Your task to perform on an android device: turn off notifications in google photos Image 0: 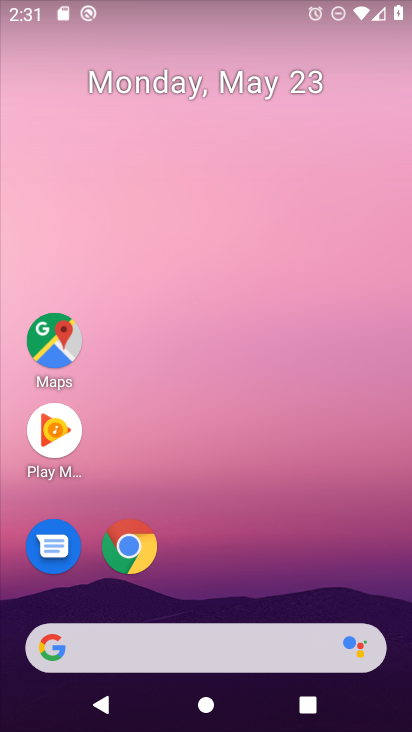
Step 0: drag from (257, 619) to (257, 80)
Your task to perform on an android device: turn off notifications in google photos Image 1: 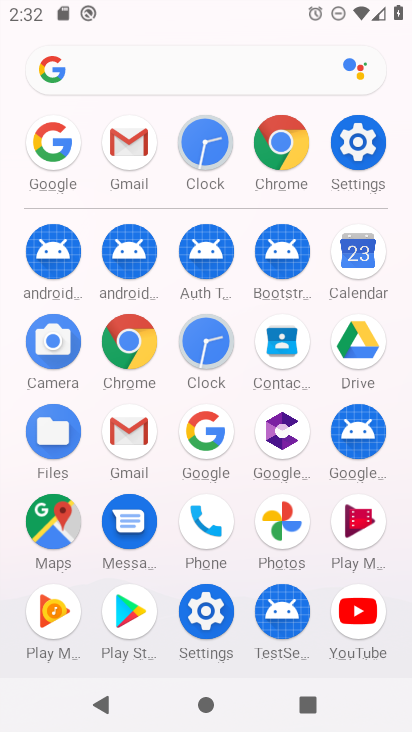
Step 1: click (284, 521)
Your task to perform on an android device: turn off notifications in google photos Image 2: 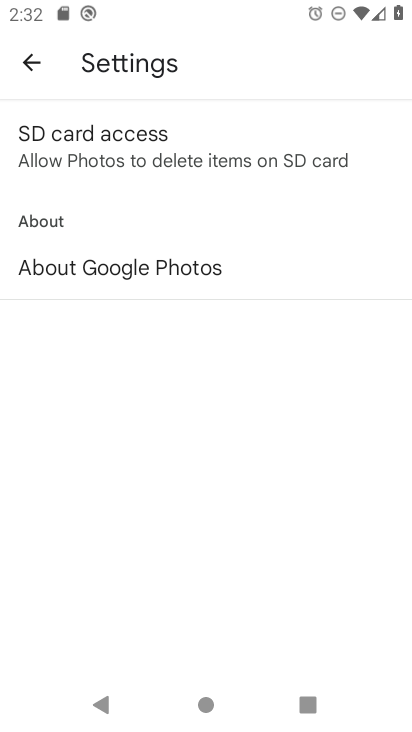
Step 2: click (44, 59)
Your task to perform on an android device: turn off notifications in google photos Image 3: 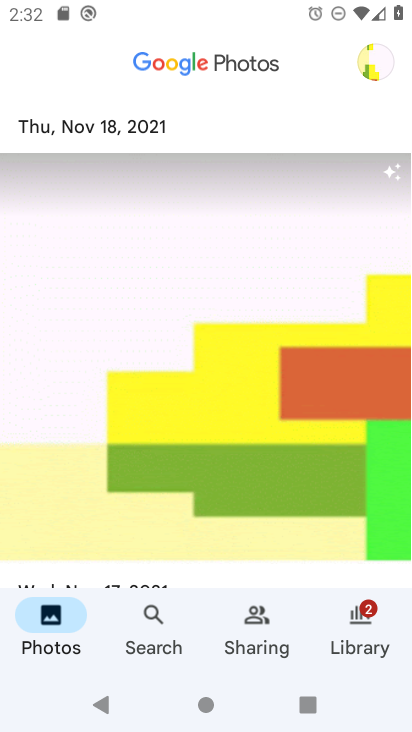
Step 3: click (389, 74)
Your task to perform on an android device: turn off notifications in google photos Image 4: 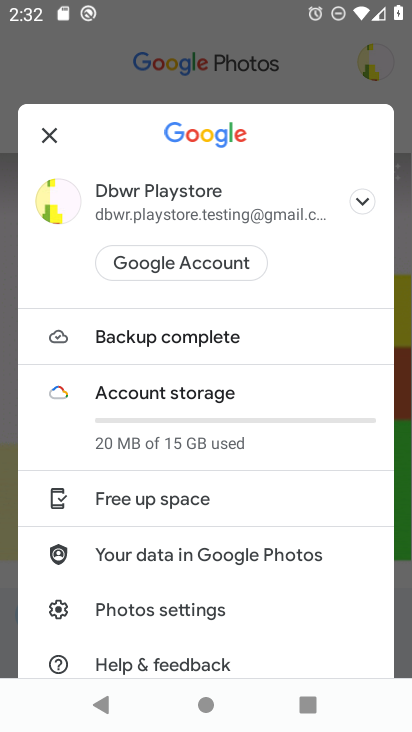
Step 4: click (168, 612)
Your task to perform on an android device: turn off notifications in google photos Image 5: 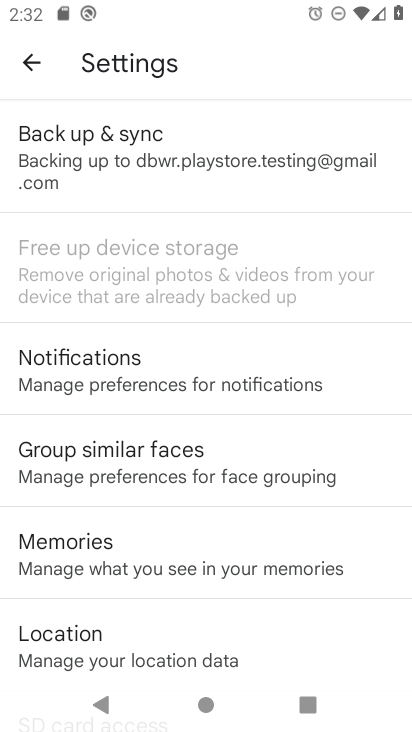
Step 5: click (123, 387)
Your task to perform on an android device: turn off notifications in google photos Image 6: 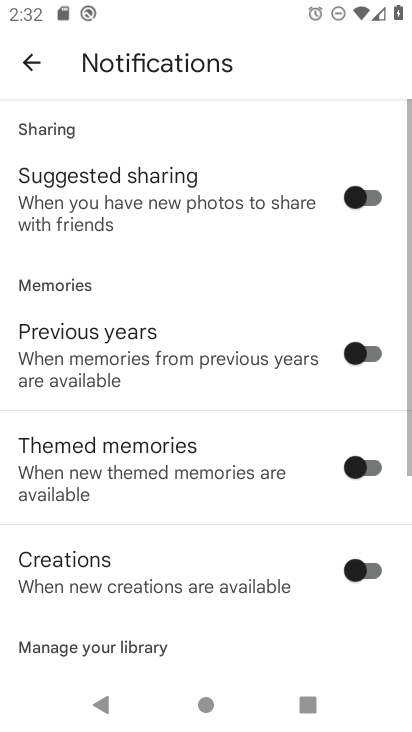
Step 6: drag from (196, 597) to (239, 146)
Your task to perform on an android device: turn off notifications in google photos Image 7: 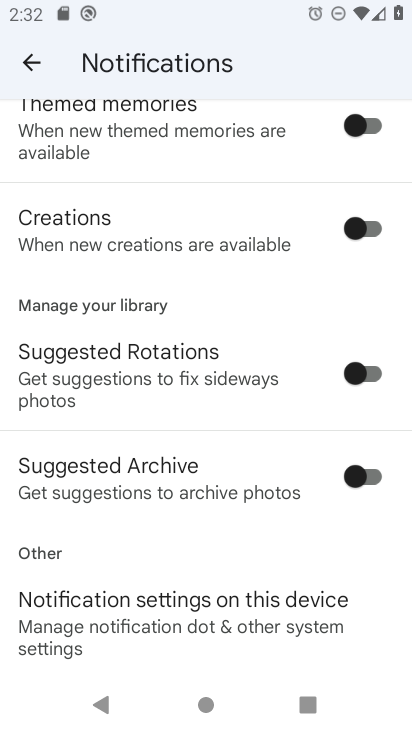
Step 7: click (240, 603)
Your task to perform on an android device: turn off notifications in google photos Image 8: 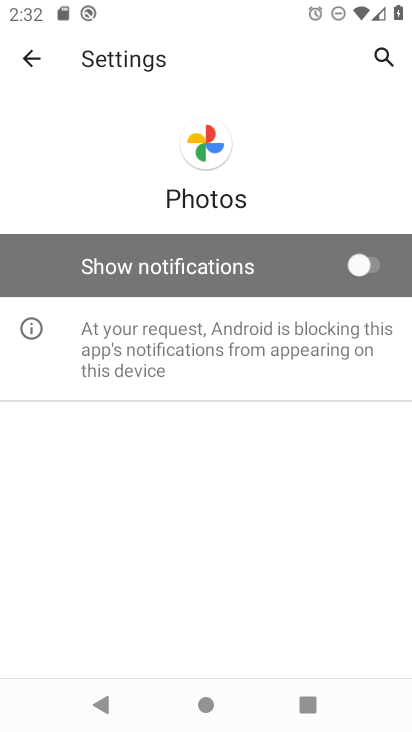
Step 8: task complete